Your task to perform on an android device: visit the assistant section in the google photos Image 0: 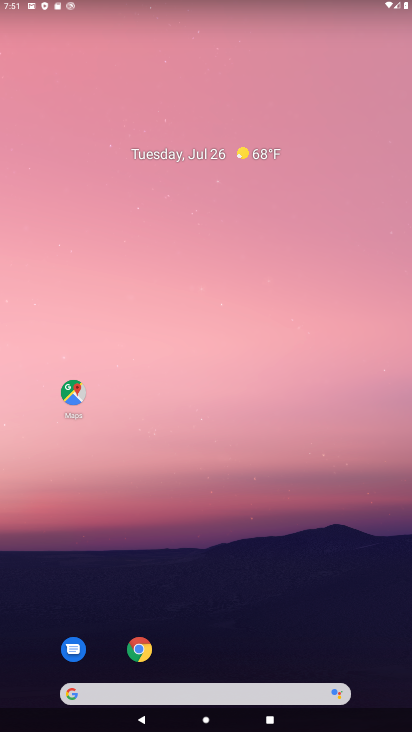
Step 0: drag from (156, 668) to (122, 130)
Your task to perform on an android device: visit the assistant section in the google photos Image 1: 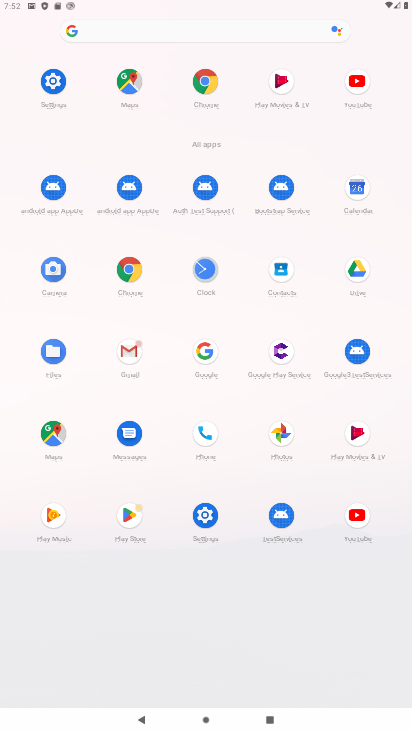
Step 1: click (287, 434)
Your task to perform on an android device: visit the assistant section in the google photos Image 2: 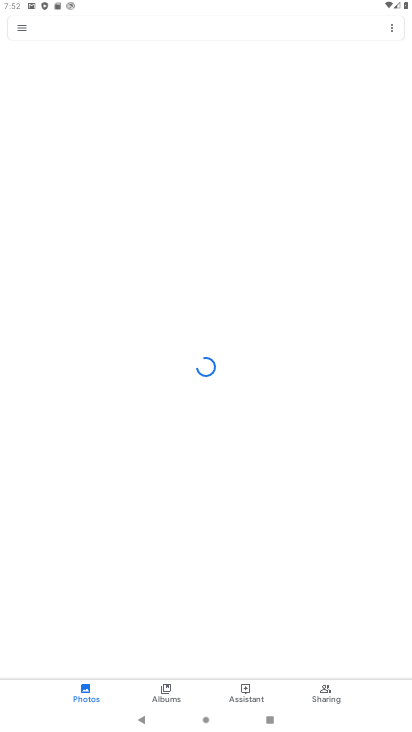
Step 2: click (245, 691)
Your task to perform on an android device: visit the assistant section in the google photos Image 3: 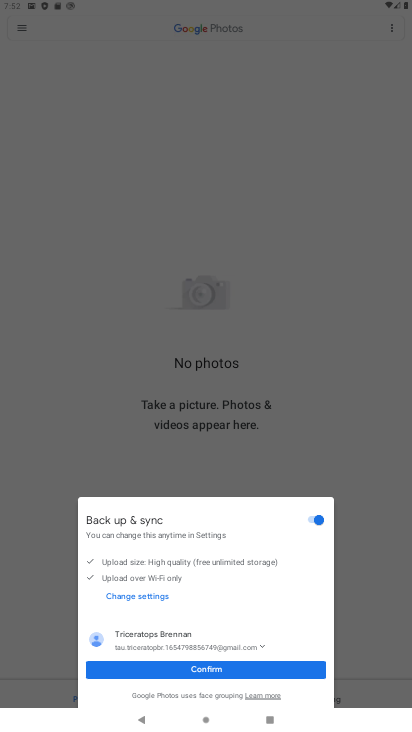
Step 3: click (221, 668)
Your task to perform on an android device: visit the assistant section in the google photos Image 4: 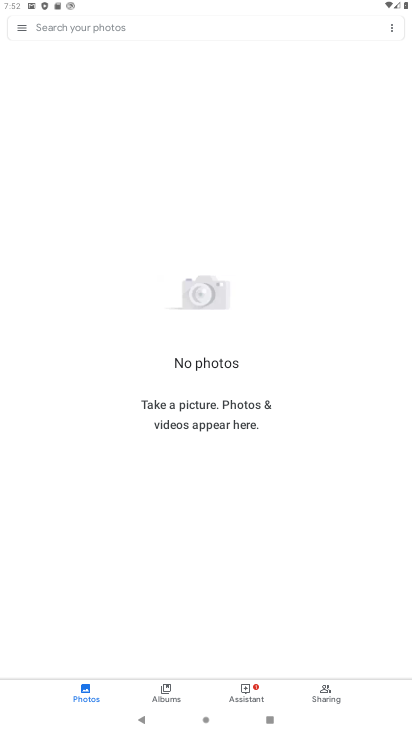
Step 4: task complete